Your task to perform on an android device: Open ESPN.com Image 0: 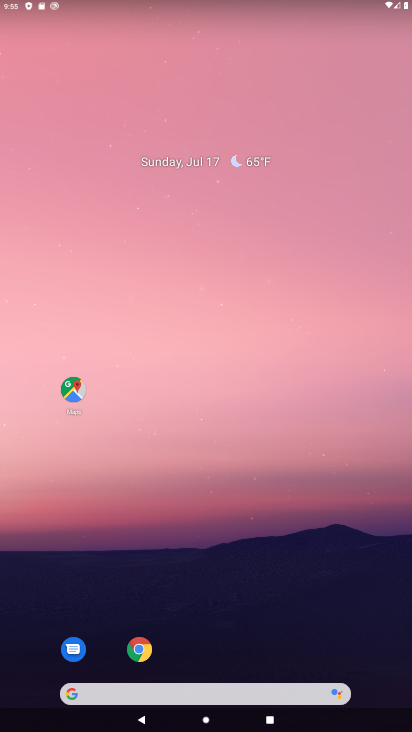
Step 0: click (141, 647)
Your task to perform on an android device: Open ESPN.com Image 1: 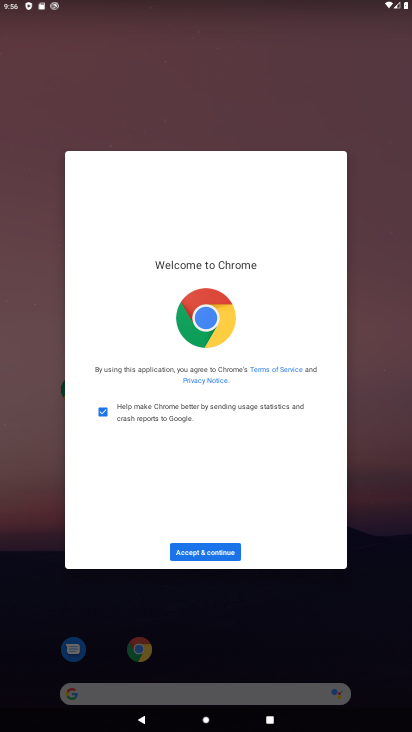
Step 1: click (217, 557)
Your task to perform on an android device: Open ESPN.com Image 2: 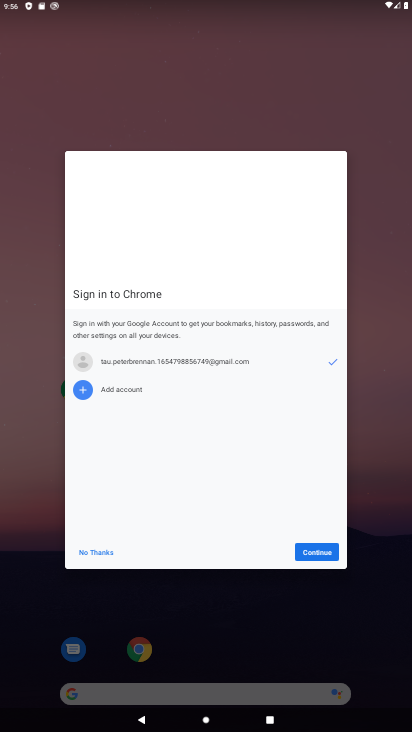
Step 2: click (304, 553)
Your task to perform on an android device: Open ESPN.com Image 3: 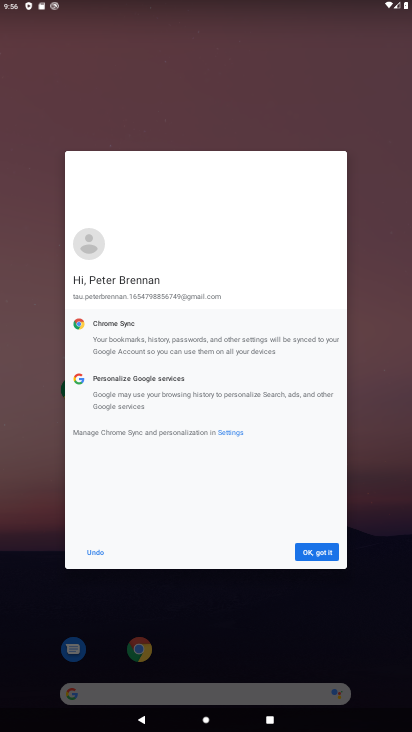
Step 3: click (309, 545)
Your task to perform on an android device: Open ESPN.com Image 4: 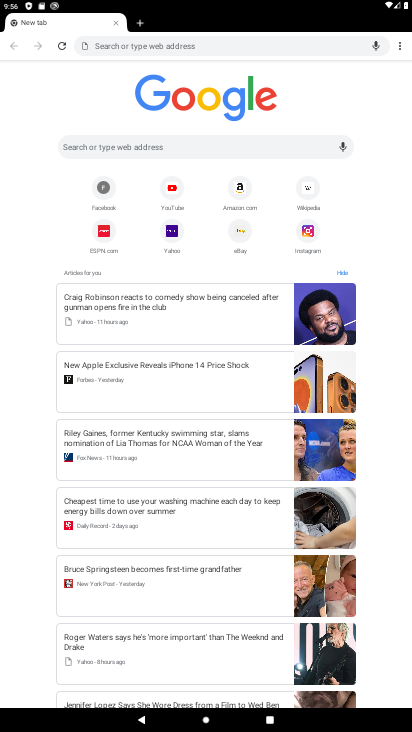
Step 4: drag from (11, 467) to (337, 362)
Your task to perform on an android device: Open ESPN.com Image 5: 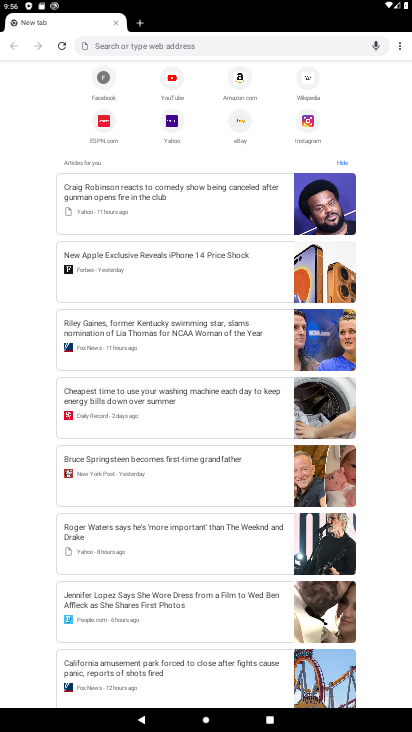
Step 5: click (100, 137)
Your task to perform on an android device: Open ESPN.com Image 6: 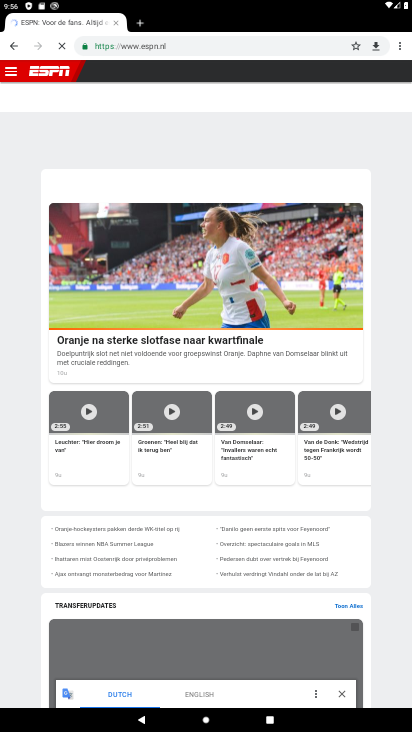
Step 6: task complete